Your task to perform on an android device: Open location settings Image 0: 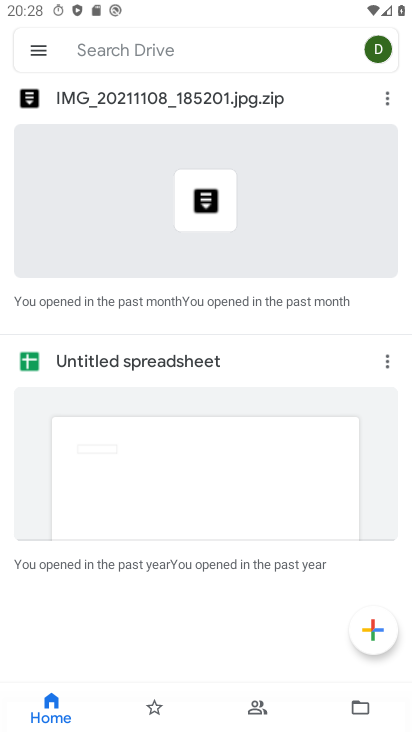
Step 0: press home button
Your task to perform on an android device: Open location settings Image 1: 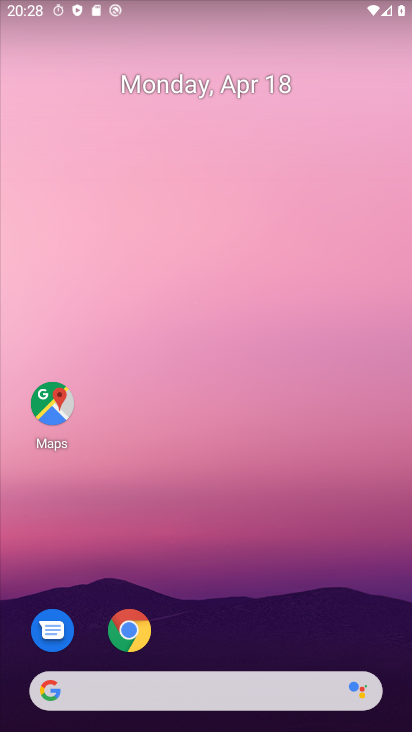
Step 1: drag from (201, 647) to (388, 0)
Your task to perform on an android device: Open location settings Image 2: 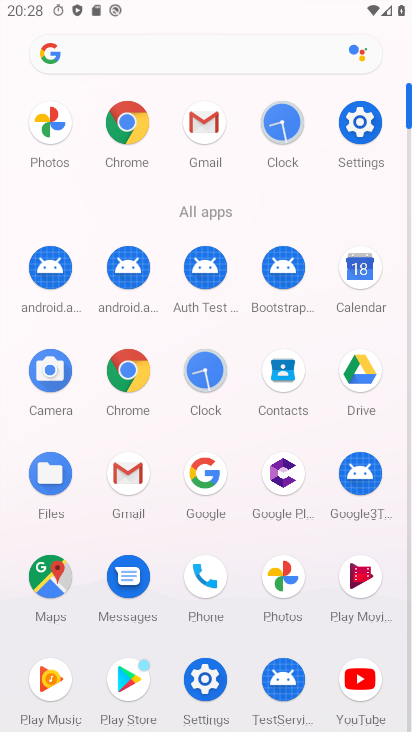
Step 2: click (359, 157)
Your task to perform on an android device: Open location settings Image 3: 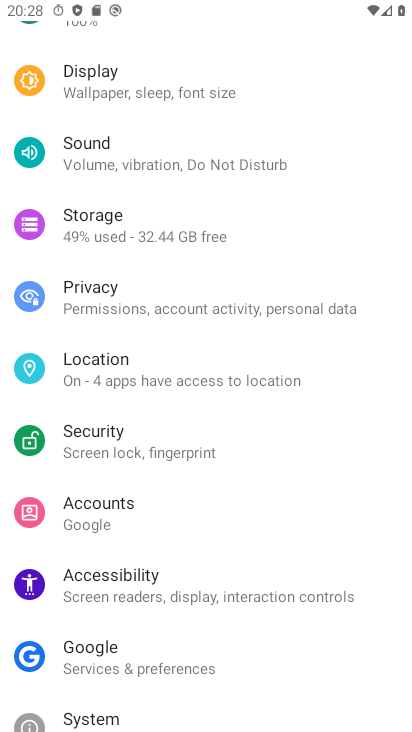
Step 3: click (137, 383)
Your task to perform on an android device: Open location settings Image 4: 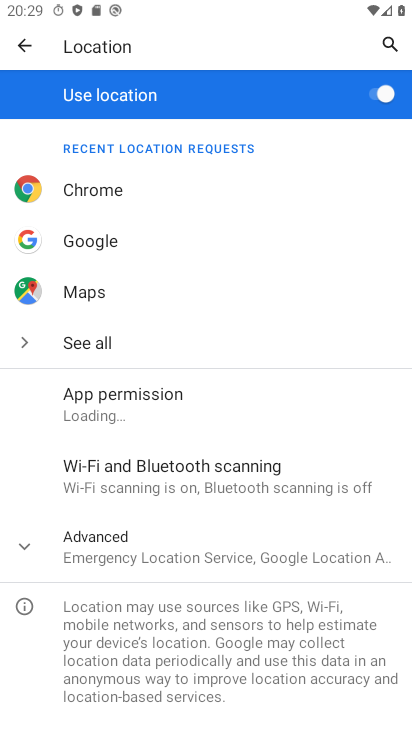
Step 4: task complete